Your task to perform on an android device: Go to notification settings Image 0: 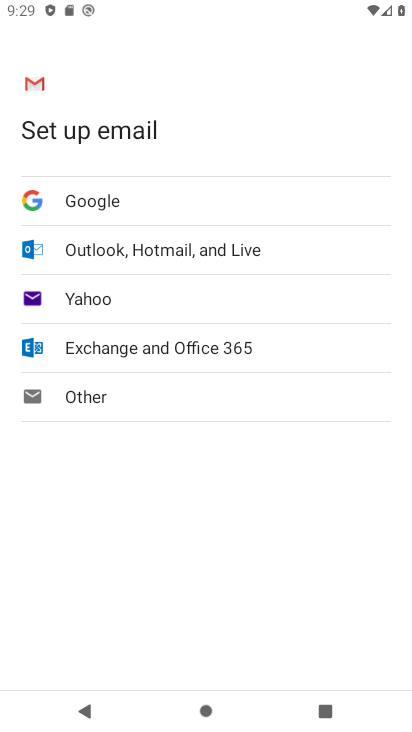
Step 0: press home button
Your task to perform on an android device: Go to notification settings Image 1: 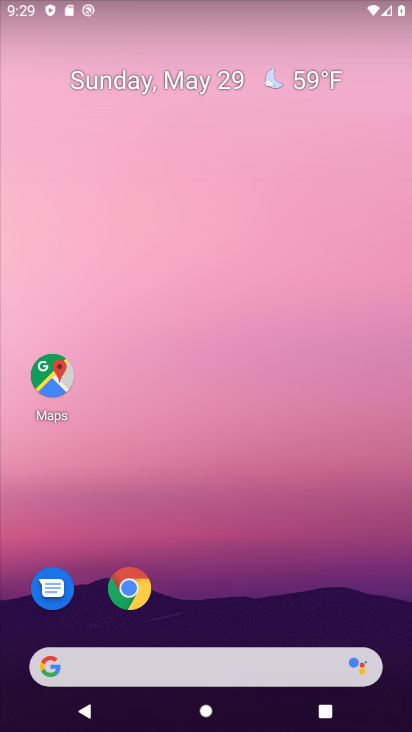
Step 1: drag from (253, 618) to (268, 194)
Your task to perform on an android device: Go to notification settings Image 2: 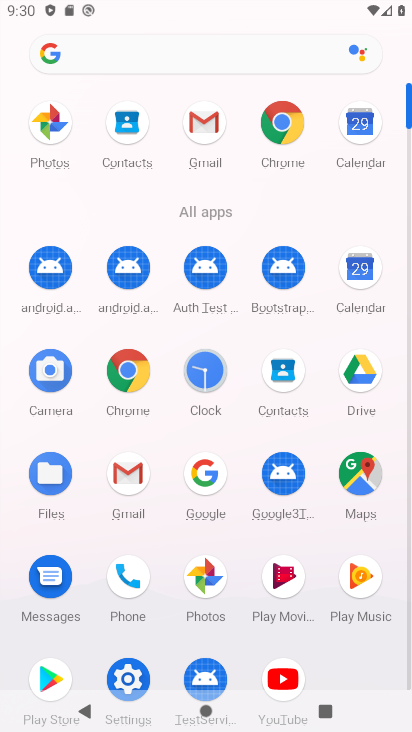
Step 2: click (209, 133)
Your task to perform on an android device: Go to notification settings Image 3: 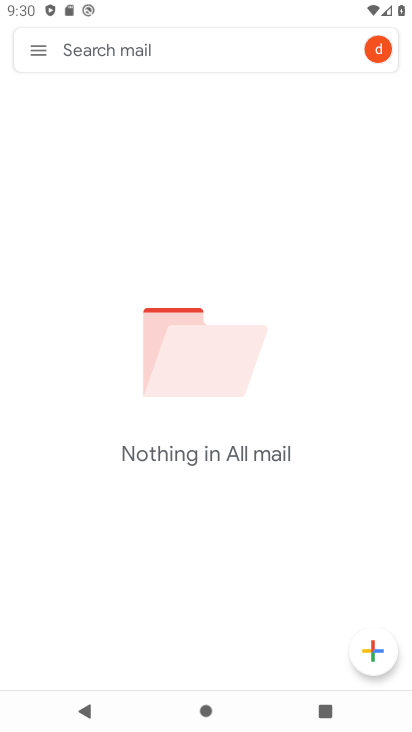
Step 3: click (43, 53)
Your task to perform on an android device: Go to notification settings Image 4: 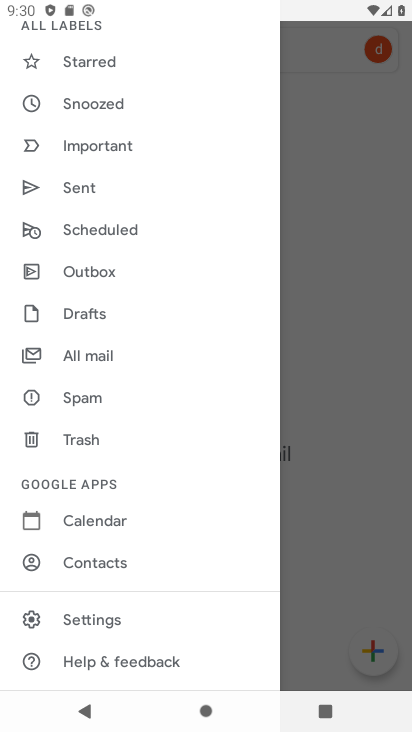
Step 4: click (188, 619)
Your task to perform on an android device: Go to notification settings Image 5: 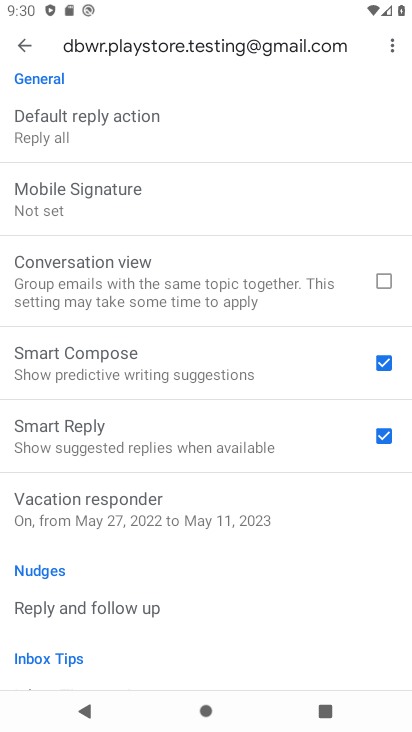
Step 5: drag from (205, 156) to (171, 560)
Your task to perform on an android device: Go to notification settings Image 6: 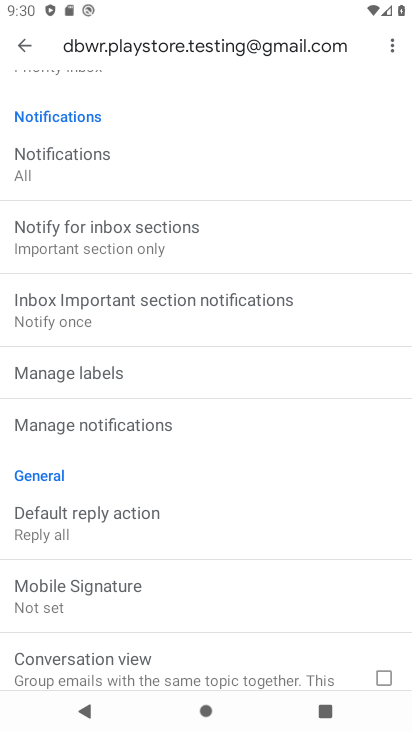
Step 6: click (154, 426)
Your task to perform on an android device: Go to notification settings Image 7: 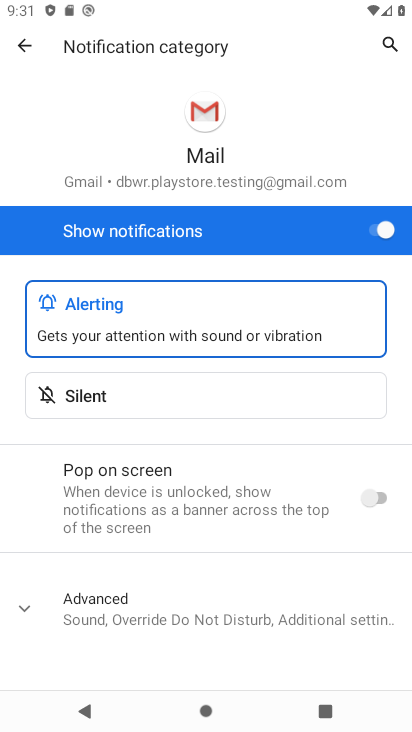
Step 7: task complete